Your task to perform on an android device: Open Amazon Image 0: 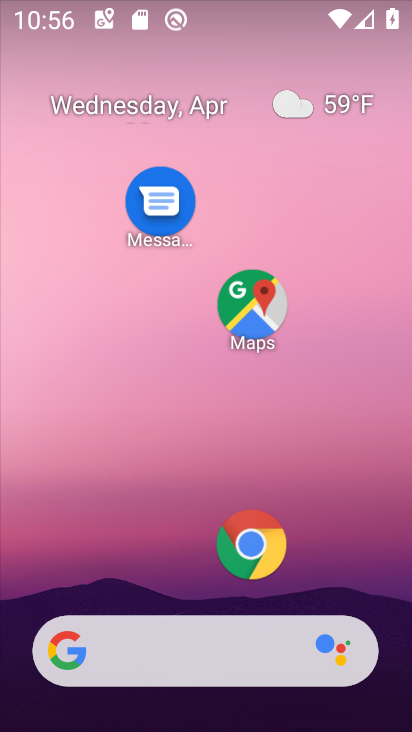
Step 0: click (255, 546)
Your task to perform on an android device: Open Amazon Image 1: 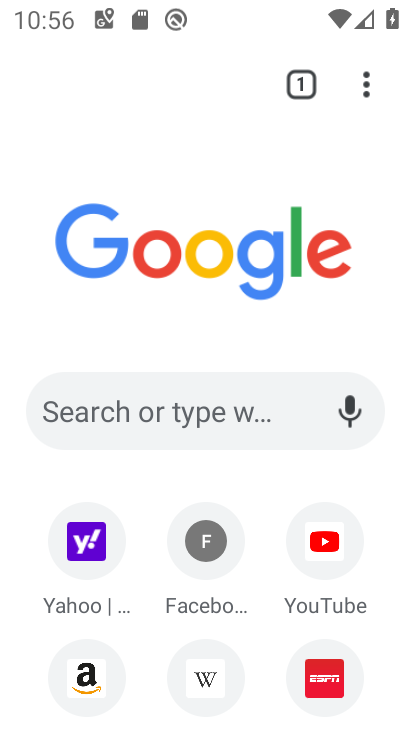
Step 1: click (84, 690)
Your task to perform on an android device: Open Amazon Image 2: 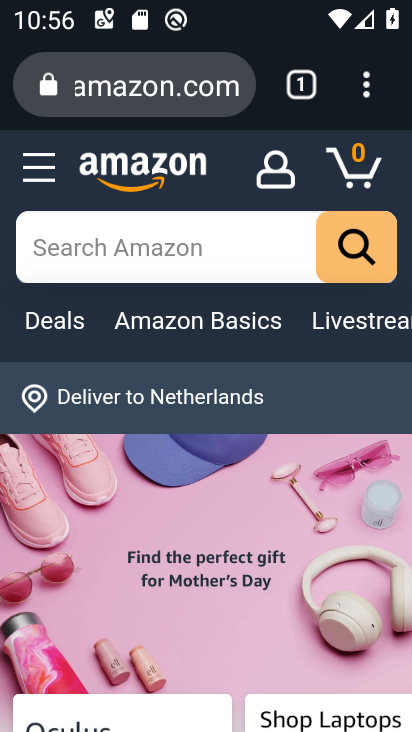
Step 2: task complete